Your task to perform on an android device: turn on sleep mode Image 0: 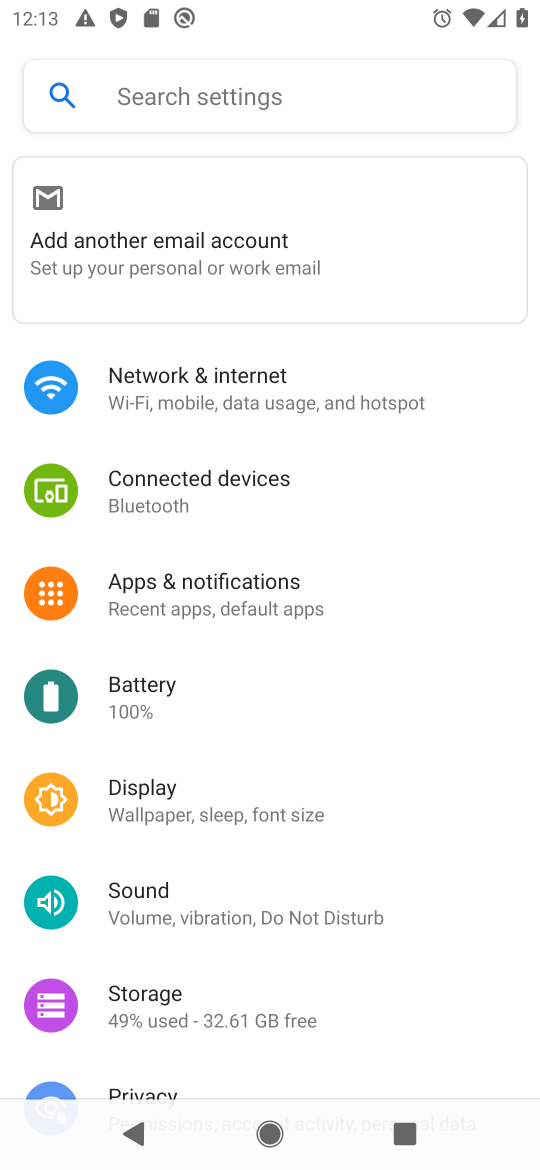
Step 0: click (294, 785)
Your task to perform on an android device: turn on sleep mode Image 1: 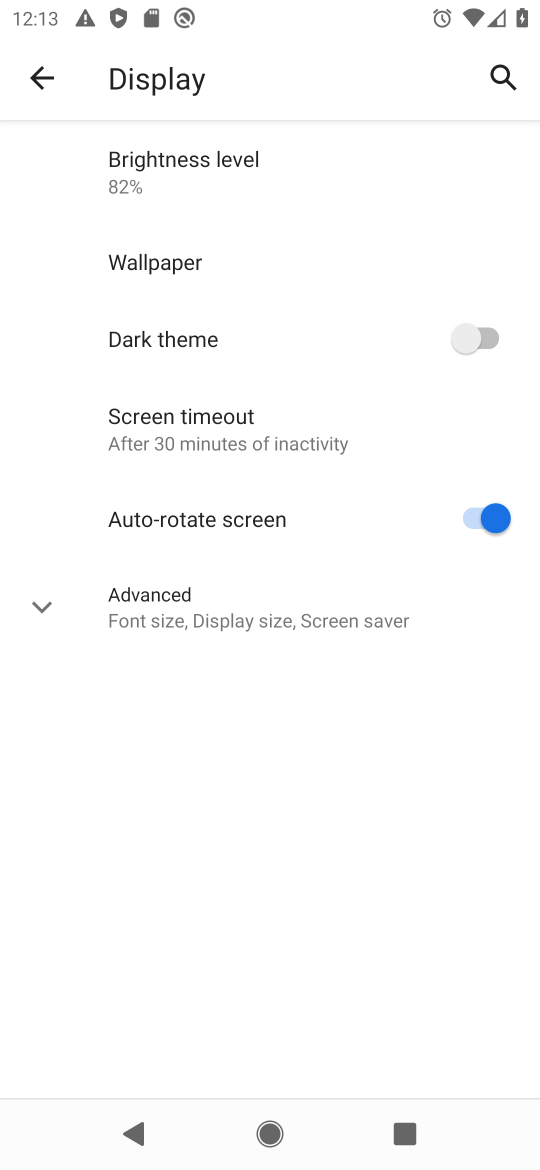
Step 1: click (279, 393)
Your task to perform on an android device: turn on sleep mode Image 2: 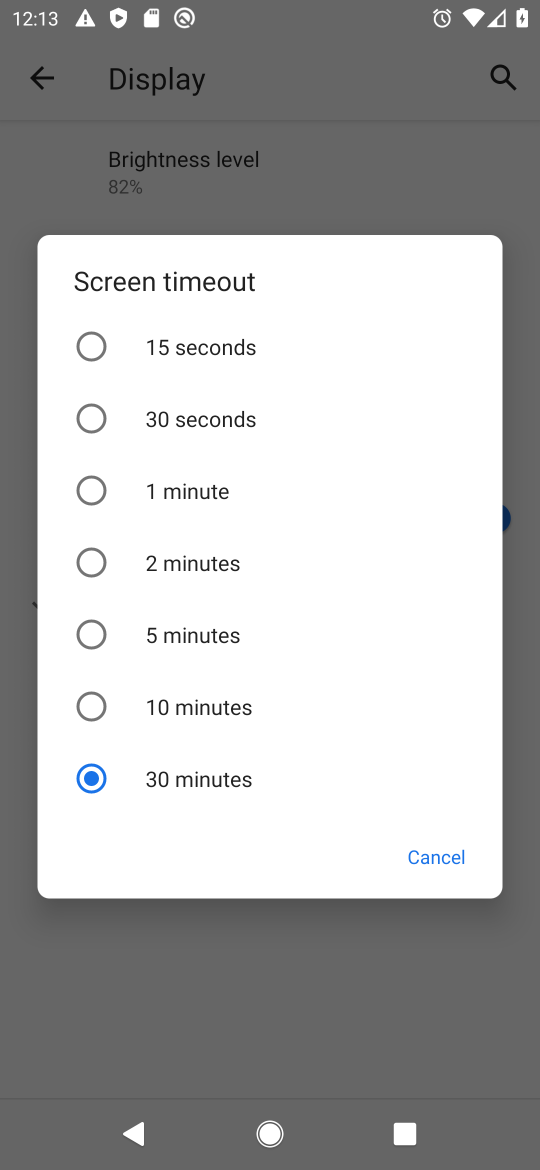
Step 2: click (232, 366)
Your task to perform on an android device: turn on sleep mode Image 3: 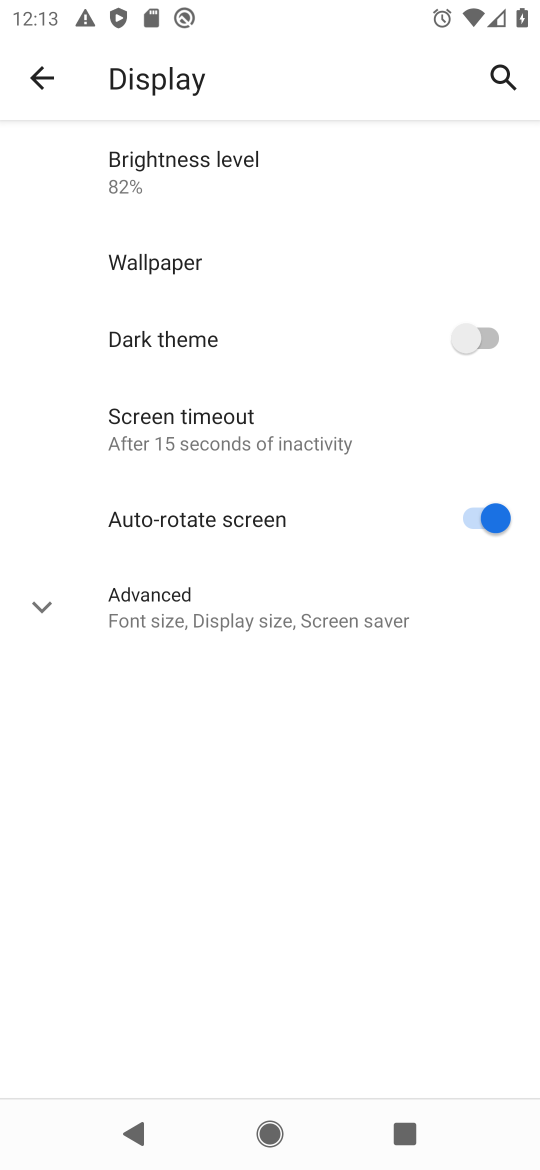
Step 3: task complete